Your task to perform on an android device: turn on airplane mode Image 0: 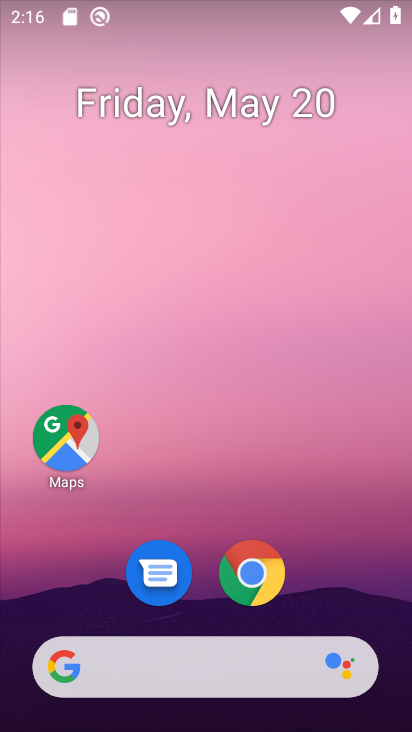
Step 0: drag from (197, 616) to (214, 241)
Your task to perform on an android device: turn on airplane mode Image 1: 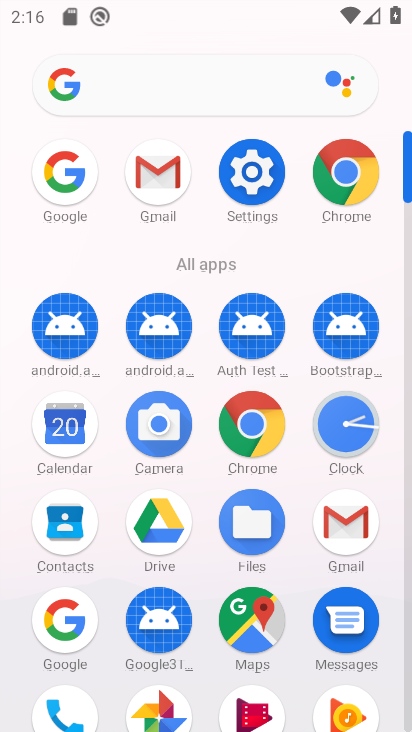
Step 1: click (224, 195)
Your task to perform on an android device: turn on airplane mode Image 2: 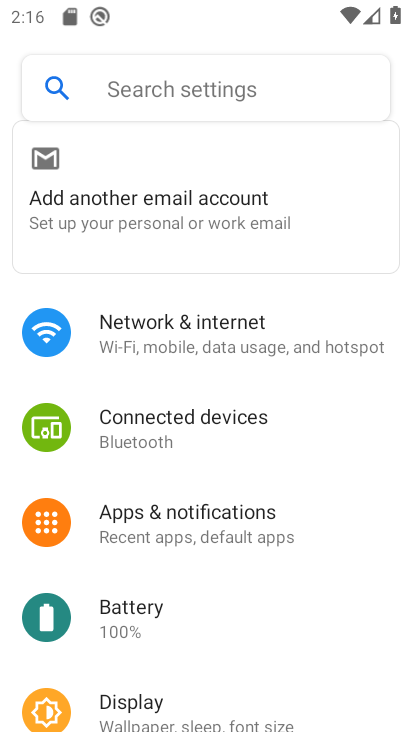
Step 2: click (184, 341)
Your task to perform on an android device: turn on airplane mode Image 3: 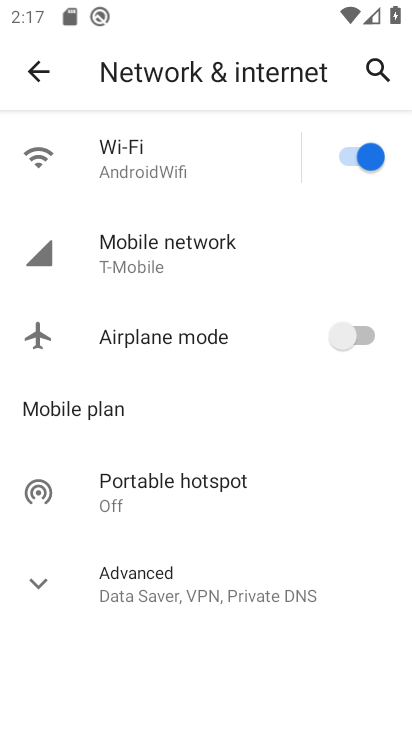
Step 3: click (378, 338)
Your task to perform on an android device: turn on airplane mode Image 4: 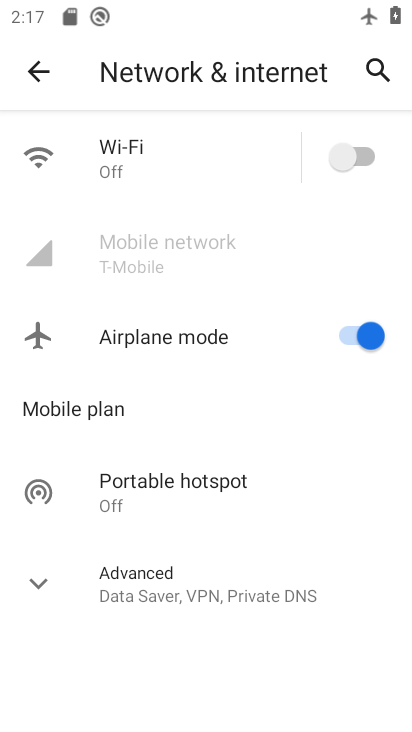
Step 4: task complete